Your task to perform on an android device: turn off wifi Image 0: 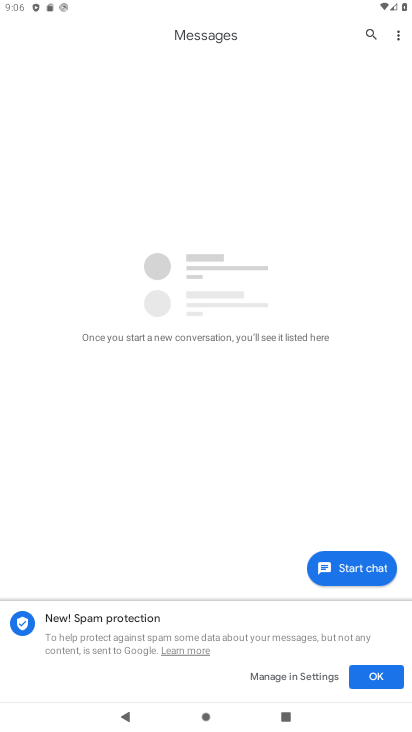
Step 0: task complete